Your task to perform on an android device: Set the phone to "Do not disturb". Image 0: 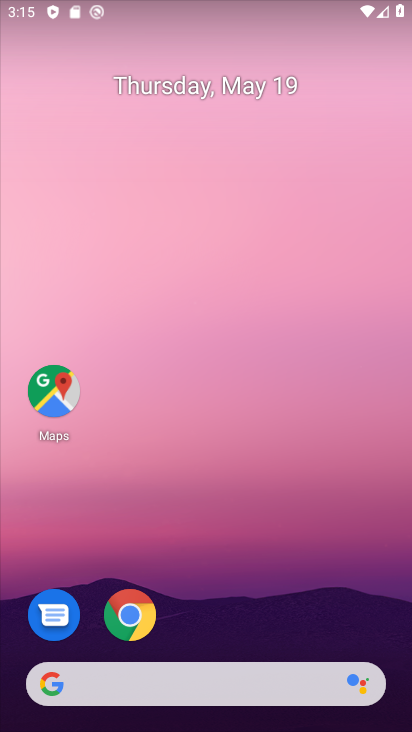
Step 0: drag from (200, 5) to (235, 421)
Your task to perform on an android device: Set the phone to "Do not disturb". Image 1: 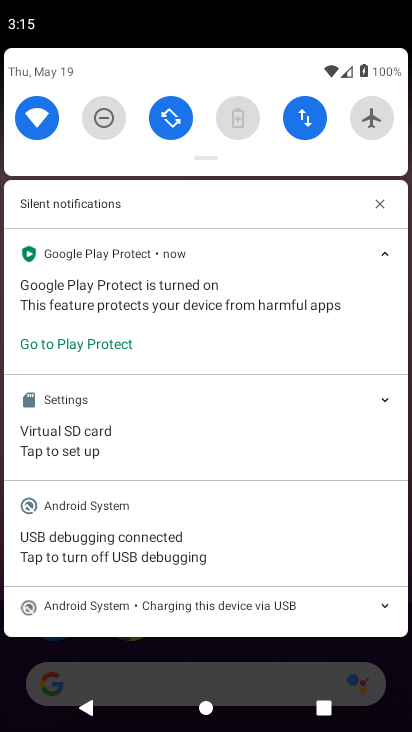
Step 1: click (104, 118)
Your task to perform on an android device: Set the phone to "Do not disturb". Image 2: 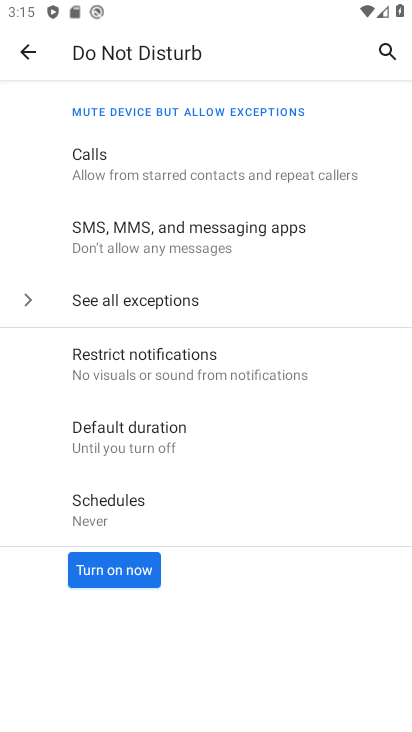
Step 2: click (121, 558)
Your task to perform on an android device: Set the phone to "Do not disturb". Image 3: 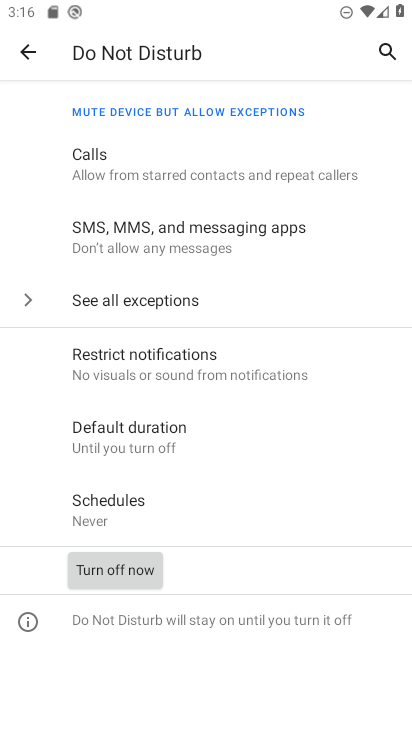
Step 3: task complete